Your task to perform on an android device: What is the news today? Image 0: 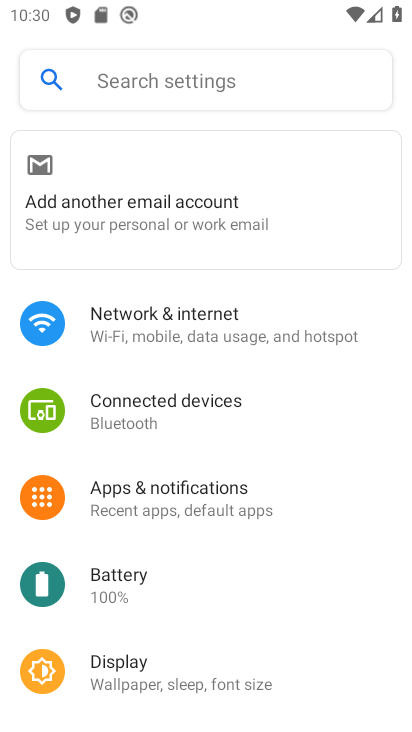
Step 0: press back button
Your task to perform on an android device: What is the news today? Image 1: 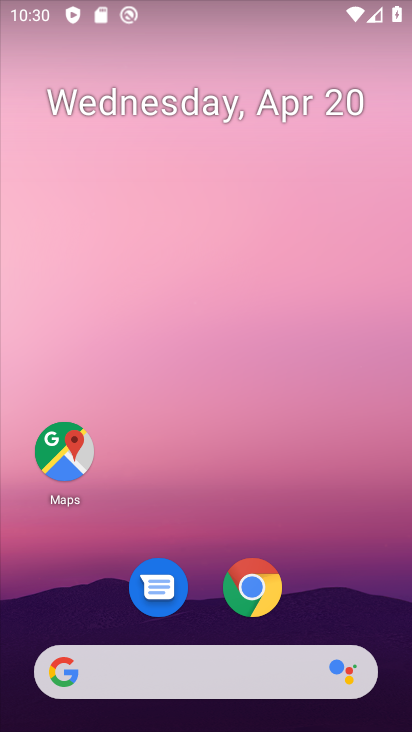
Step 1: click (233, 666)
Your task to perform on an android device: What is the news today? Image 2: 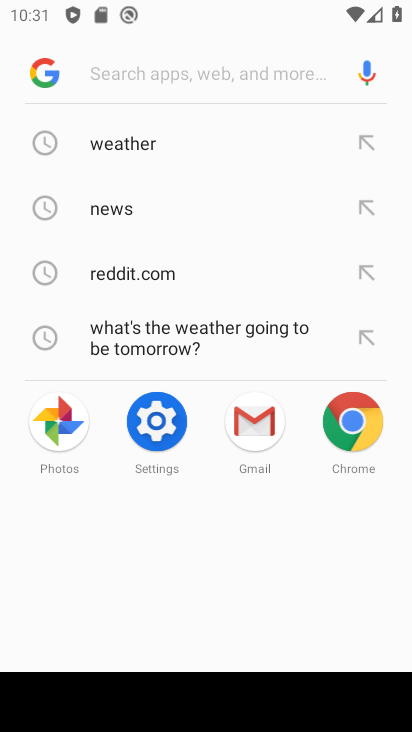
Step 2: type "What is the news today?"
Your task to perform on an android device: What is the news today? Image 3: 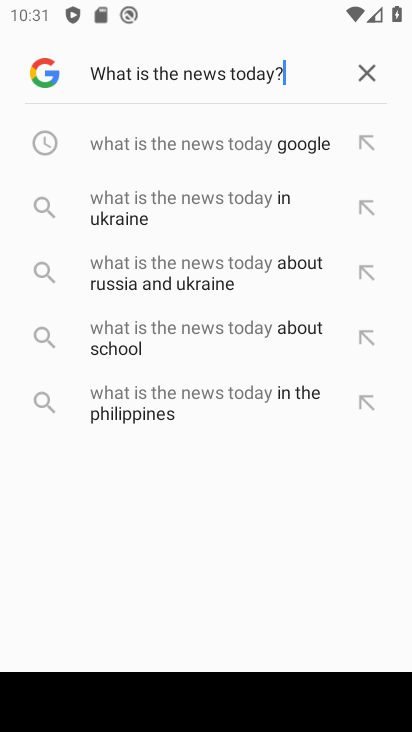
Step 3: click (231, 139)
Your task to perform on an android device: What is the news today? Image 4: 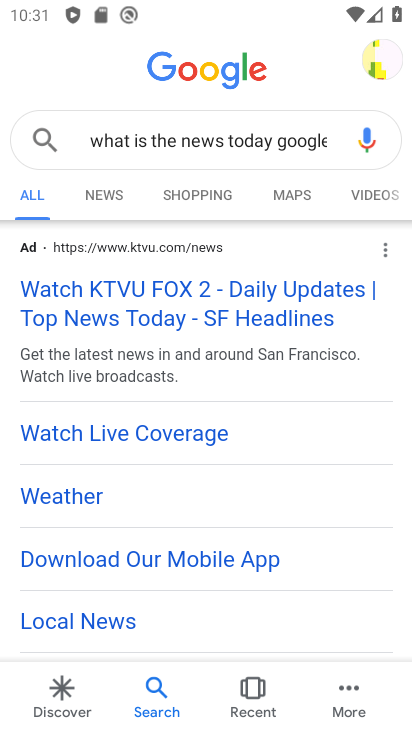
Step 4: click (100, 193)
Your task to perform on an android device: What is the news today? Image 5: 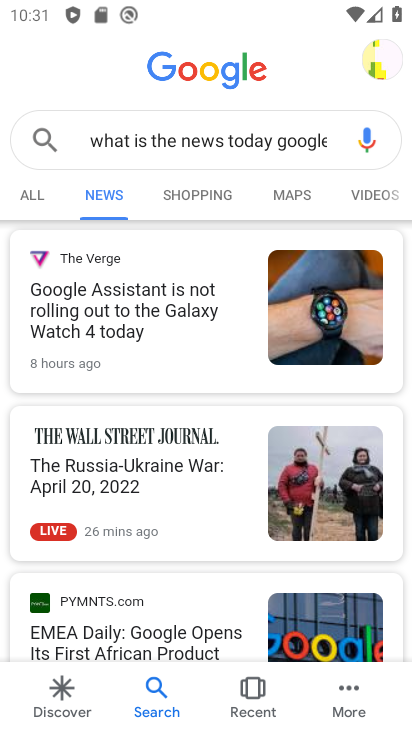
Step 5: task complete